Your task to perform on an android device: Open ESPN.com Image 0: 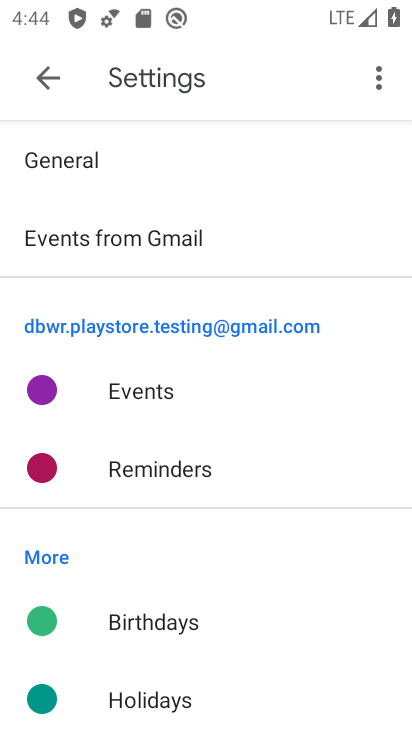
Step 0: press home button
Your task to perform on an android device: Open ESPN.com Image 1: 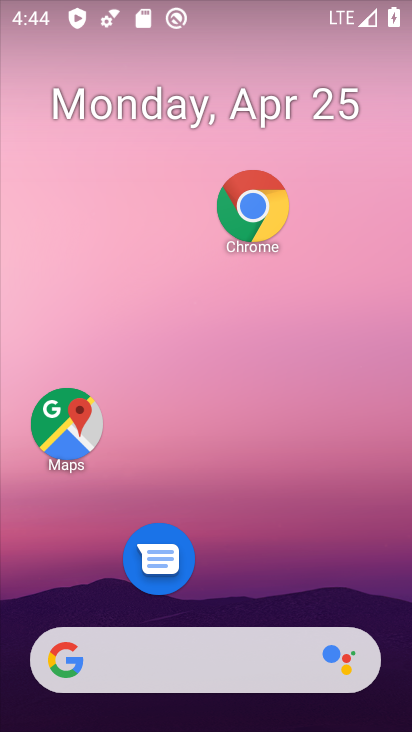
Step 1: click (256, 206)
Your task to perform on an android device: Open ESPN.com Image 2: 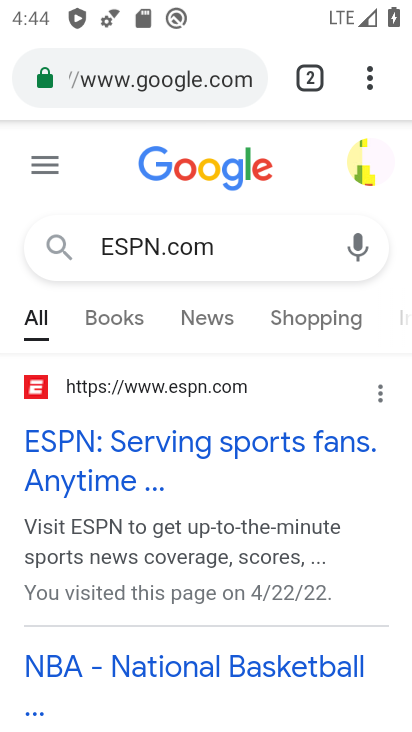
Step 2: click (260, 435)
Your task to perform on an android device: Open ESPN.com Image 3: 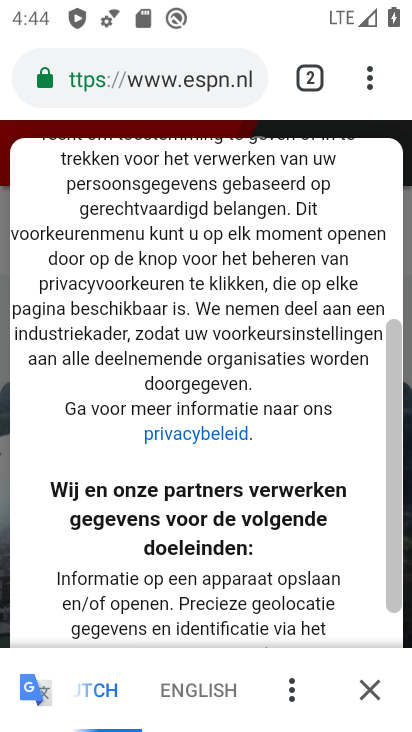
Step 3: task complete